Your task to perform on an android device: toggle improve location accuracy Image 0: 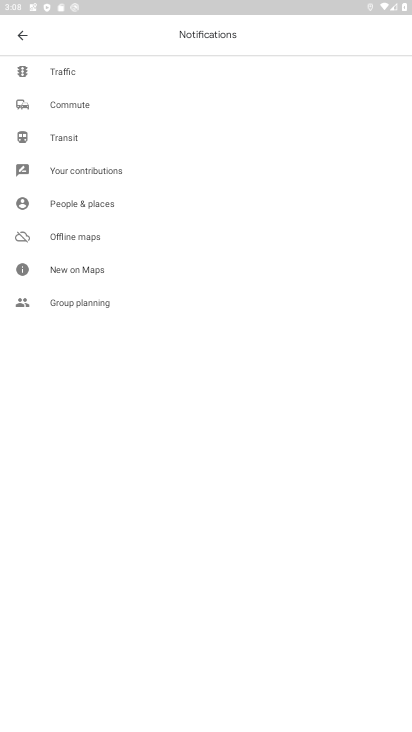
Step 0: press home button
Your task to perform on an android device: toggle improve location accuracy Image 1: 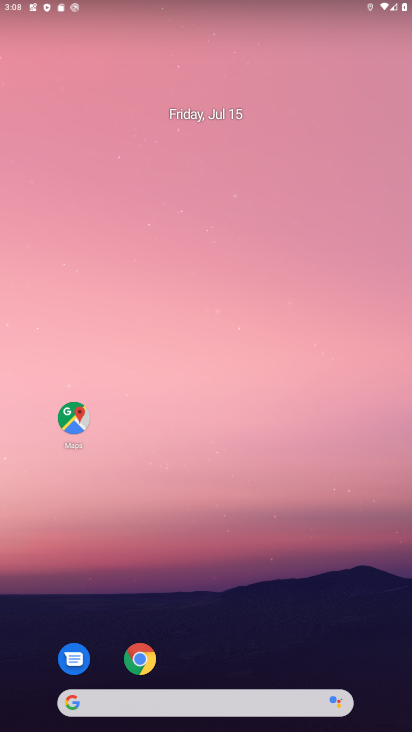
Step 1: drag from (148, 578) to (261, 243)
Your task to perform on an android device: toggle improve location accuracy Image 2: 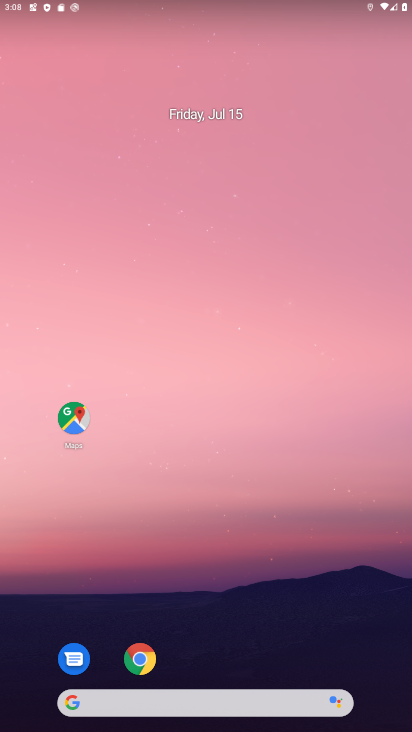
Step 2: drag from (33, 664) to (167, 307)
Your task to perform on an android device: toggle improve location accuracy Image 3: 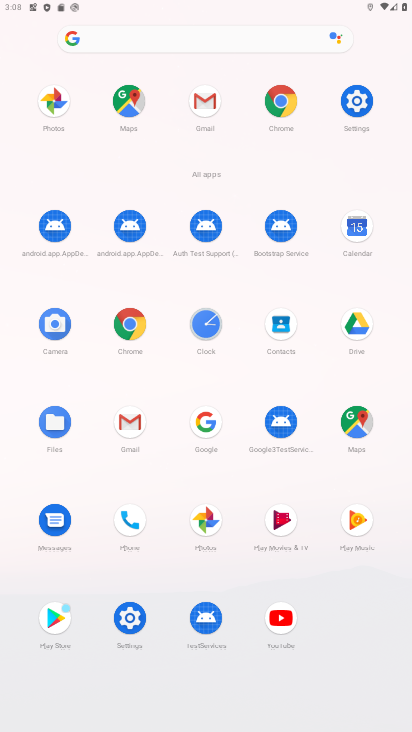
Step 3: click (121, 628)
Your task to perform on an android device: toggle improve location accuracy Image 4: 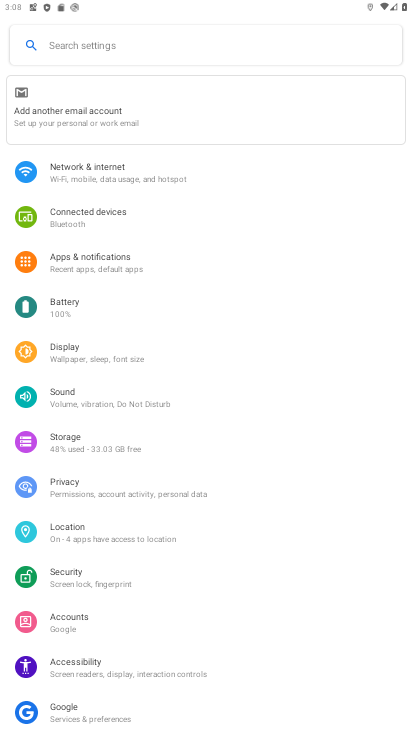
Step 4: click (69, 534)
Your task to perform on an android device: toggle improve location accuracy Image 5: 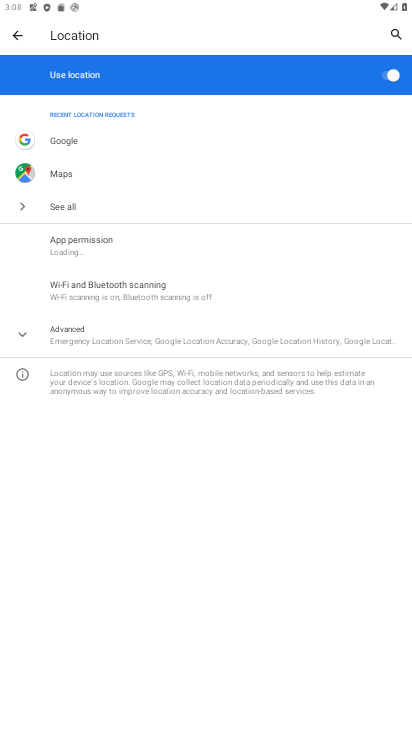
Step 5: click (131, 335)
Your task to perform on an android device: toggle improve location accuracy Image 6: 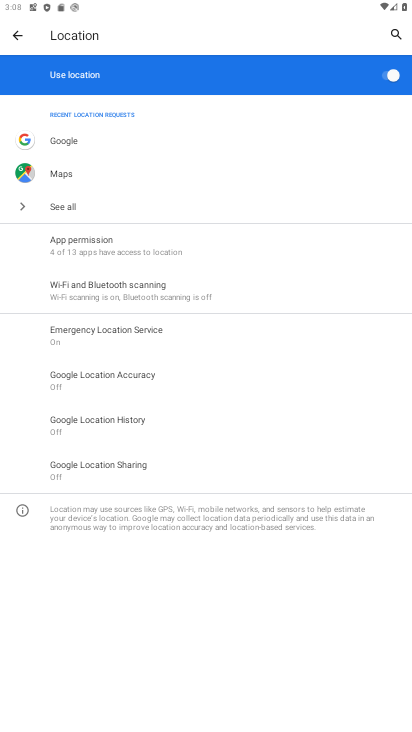
Step 6: click (111, 388)
Your task to perform on an android device: toggle improve location accuracy Image 7: 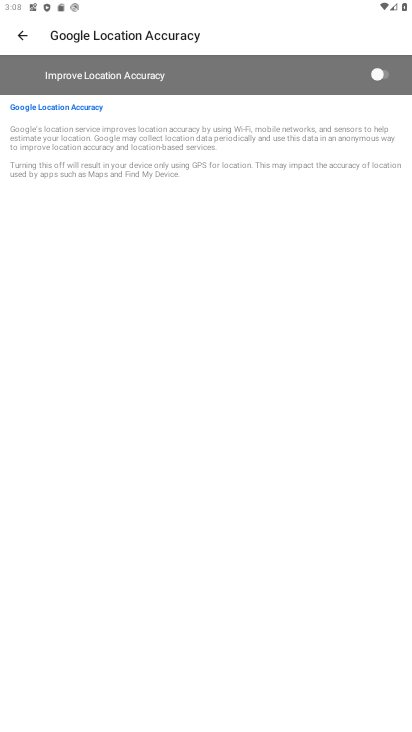
Step 7: click (385, 73)
Your task to perform on an android device: toggle improve location accuracy Image 8: 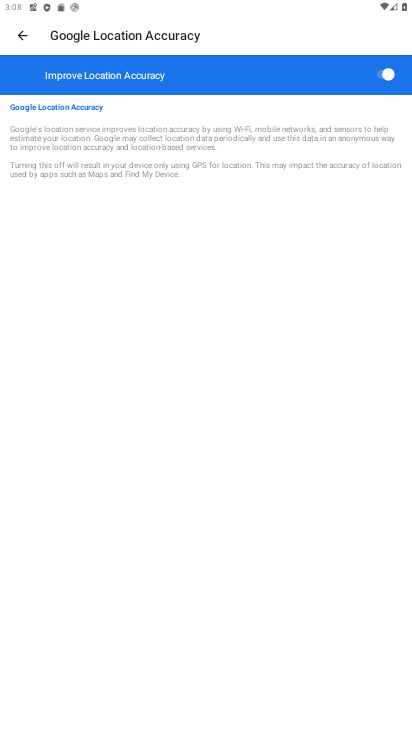
Step 8: task complete